Your task to perform on an android device: Show me popular videos on Youtube Image 0: 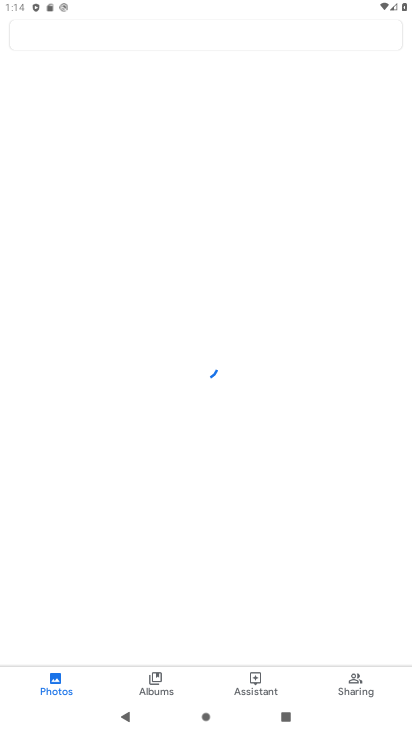
Step 0: press home button
Your task to perform on an android device: Show me popular videos on Youtube Image 1: 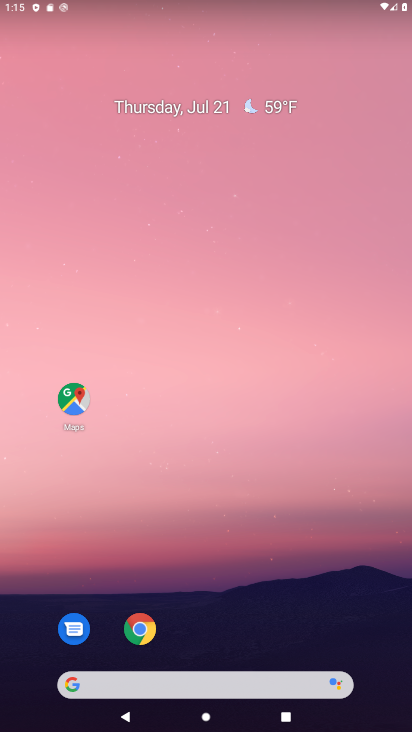
Step 1: drag from (316, 606) to (355, 49)
Your task to perform on an android device: Show me popular videos on Youtube Image 2: 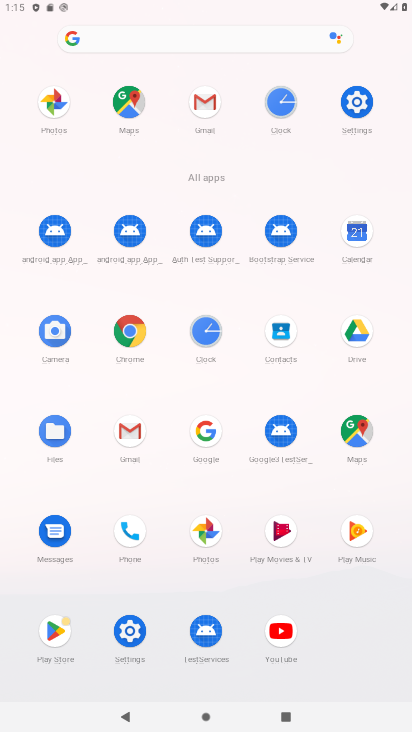
Step 2: click (284, 624)
Your task to perform on an android device: Show me popular videos on Youtube Image 3: 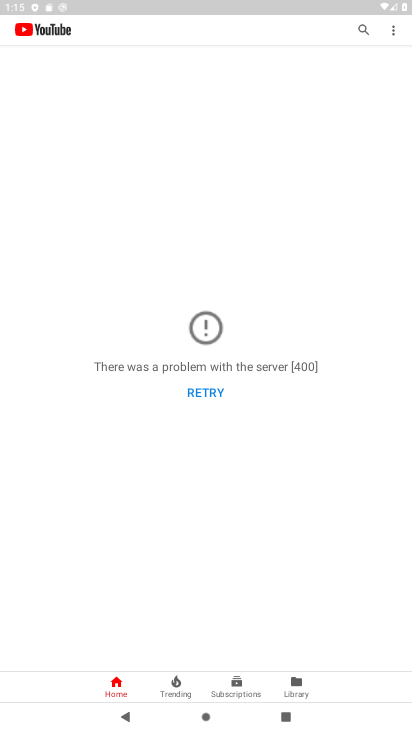
Step 3: click (170, 679)
Your task to perform on an android device: Show me popular videos on Youtube Image 4: 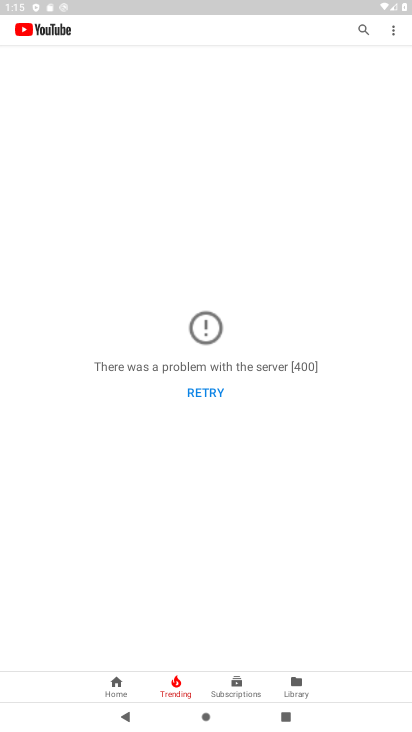
Step 4: click (214, 393)
Your task to perform on an android device: Show me popular videos on Youtube Image 5: 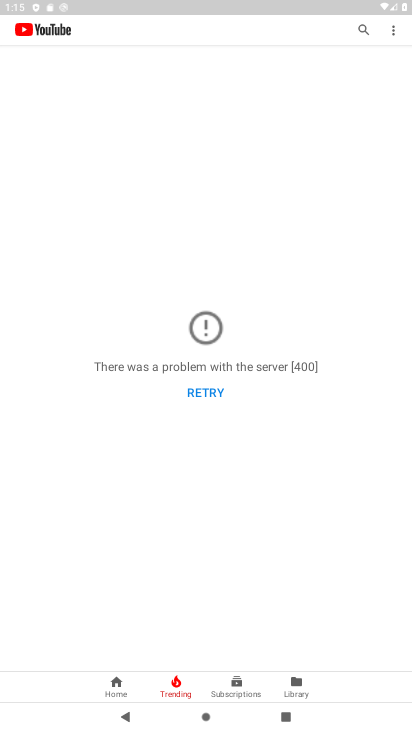
Step 5: click (214, 393)
Your task to perform on an android device: Show me popular videos on Youtube Image 6: 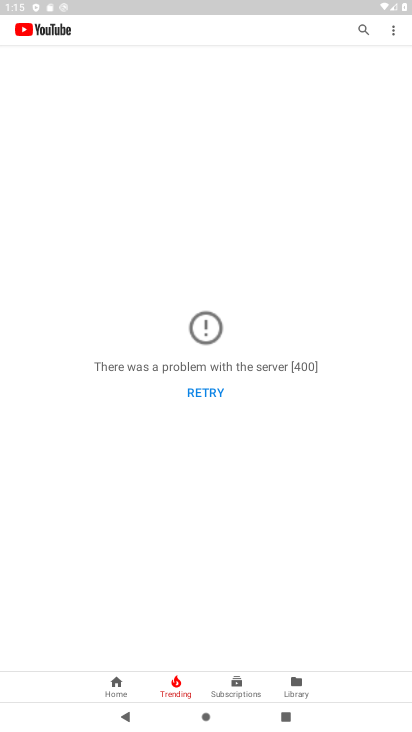
Step 6: task complete